Your task to perform on an android device: What is the news today? Image 0: 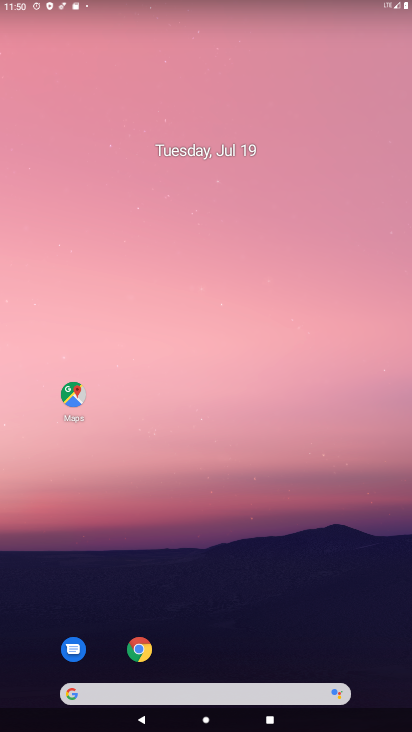
Step 0: drag from (1, 212) to (395, 287)
Your task to perform on an android device: What is the news today? Image 1: 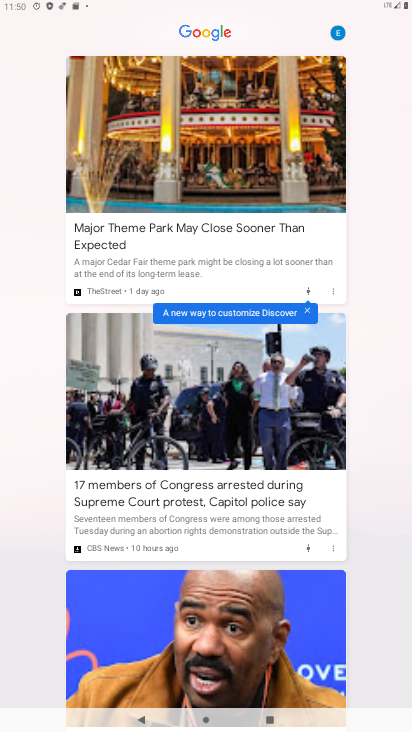
Step 1: task complete